Your task to perform on an android device: What's the weather? Image 0: 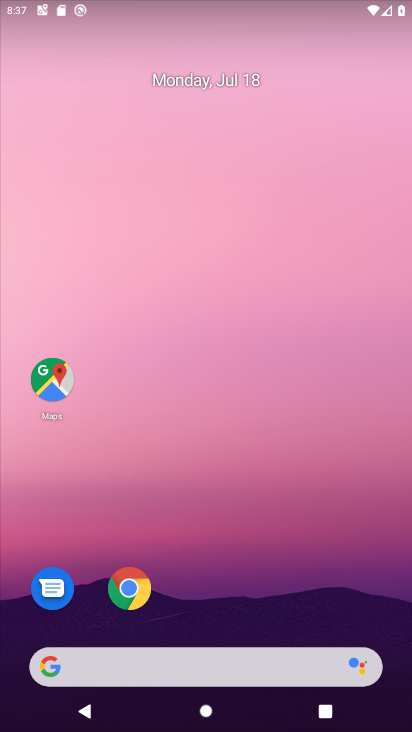
Step 0: drag from (202, 633) to (248, 53)
Your task to perform on an android device: What's the weather? Image 1: 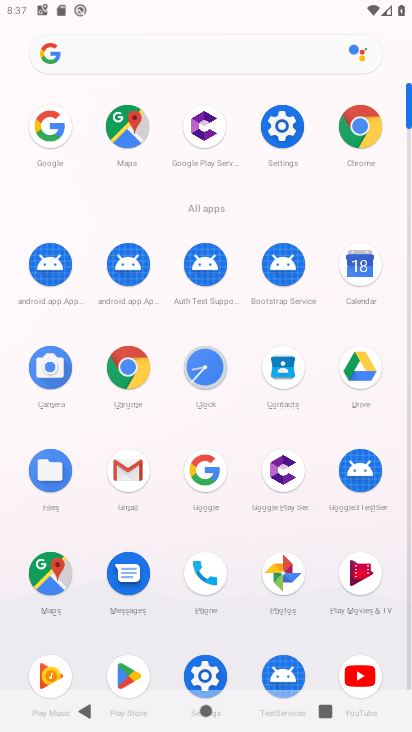
Step 1: click (121, 363)
Your task to perform on an android device: What's the weather? Image 2: 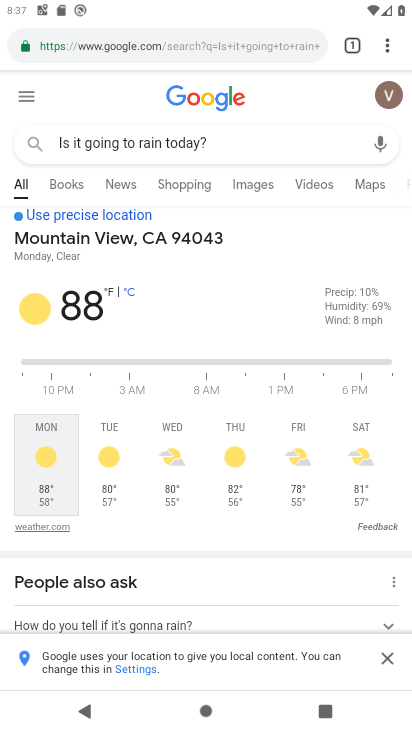
Step 2: drag from (297, 329) to (276, 584)
Your task to perform on an android device: What's the weather? Image 3: 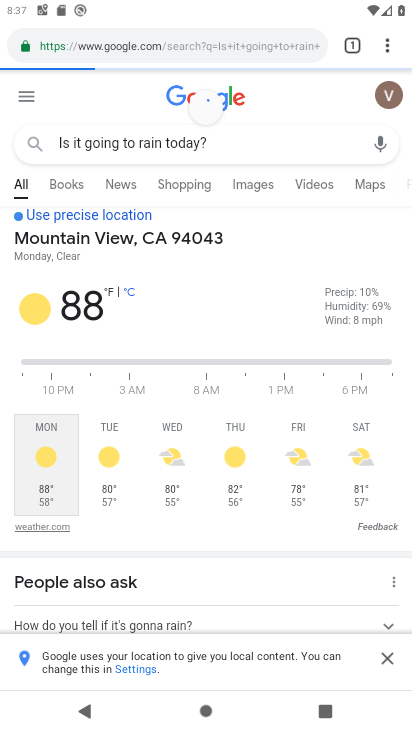
Step 3: click (317, 135)
Your task to perform on an android device: What's the weather? Image 4: 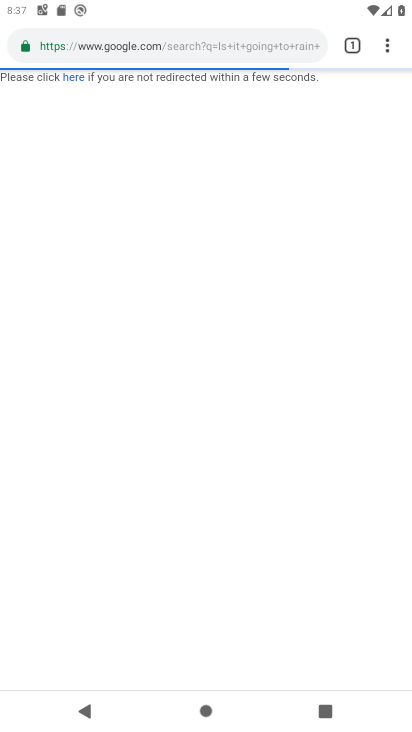
Step 4: click (266, 41)
Your task to perform on an android device: What's the weather? Image 5: 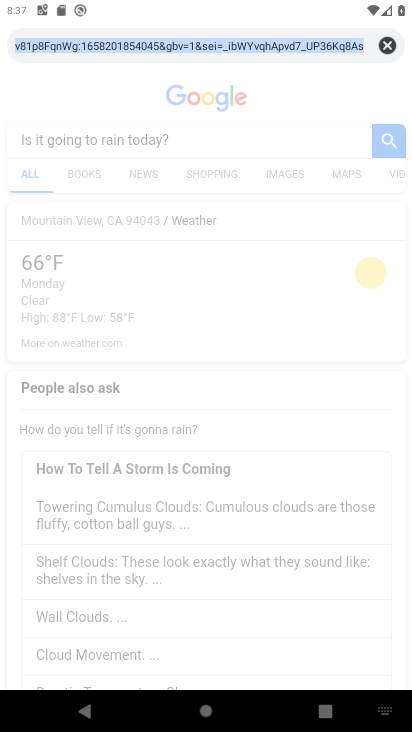
Step 5: click (384, 43)
Your task to perform on an android device: What's the weather? Image 6: 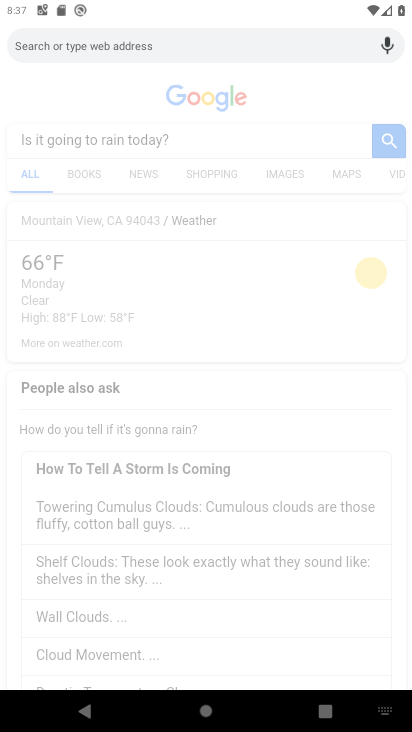
Step 6: type "What's the weather?"
Your task to perform on an android device: What's the weather? Image 7: 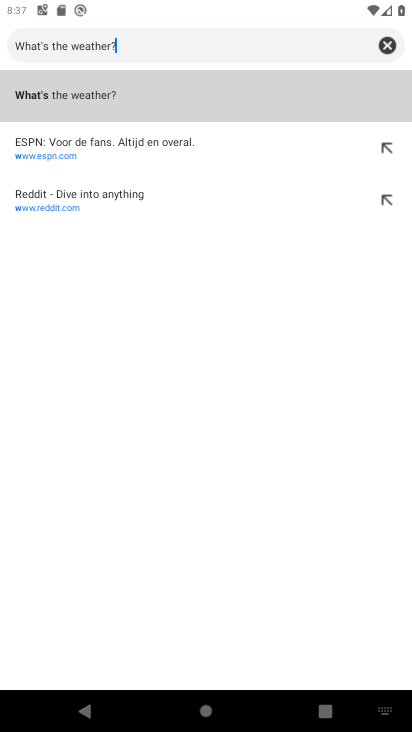
Step 7: type ""
Your task to perform on an android device: What's the weather? Image 8: 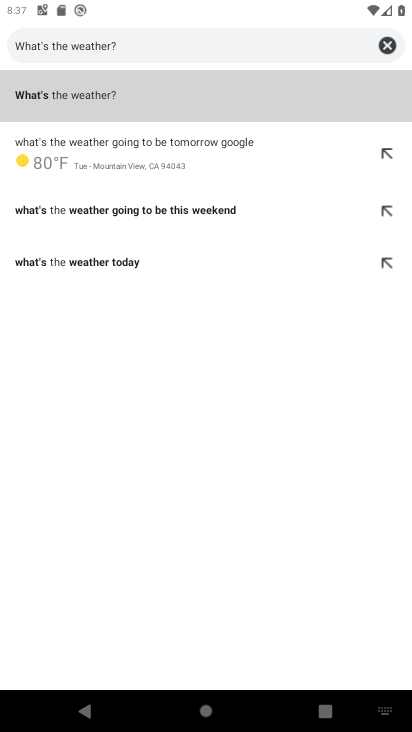
Step 8: press enter
Your task to perform on an android device: What's the weather? Image 9: 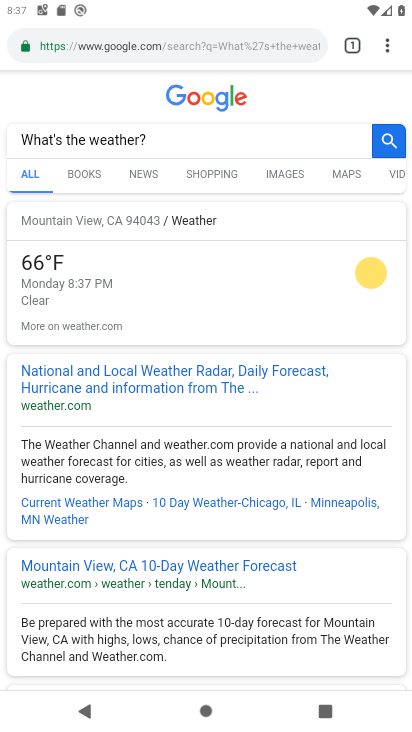
Step 9: task complete